Your task to perform on an android device: see creations saved in the google photos Image 0: 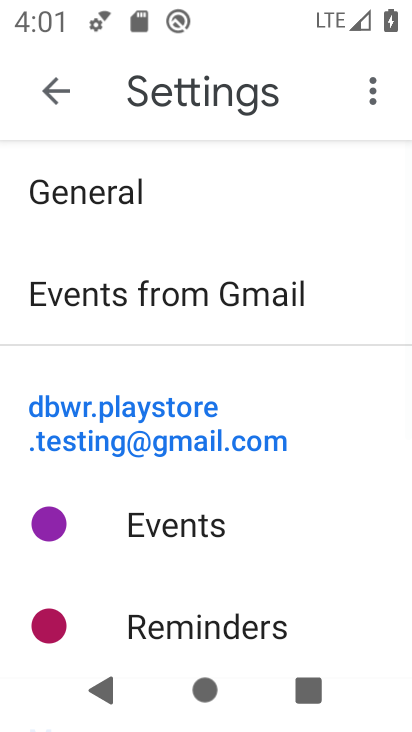
Step 0: press home button
Your task to perform on an android device: see creations saved in the google photos Image 1: 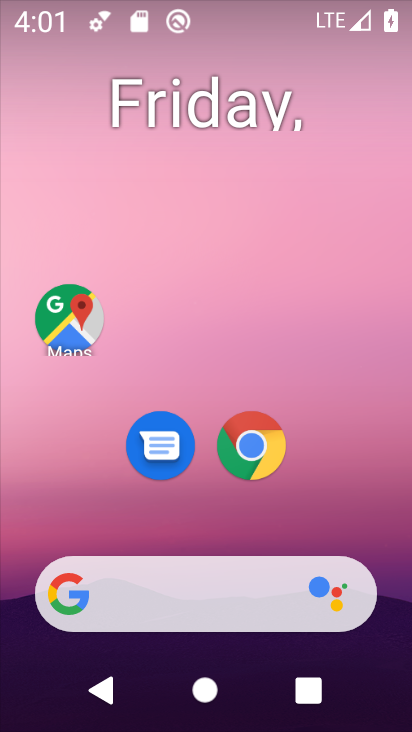
Step 1: drag from (396, 528) to (306, 178)
Your task to perform on an android device: see creations saved in the google photos Image 2: 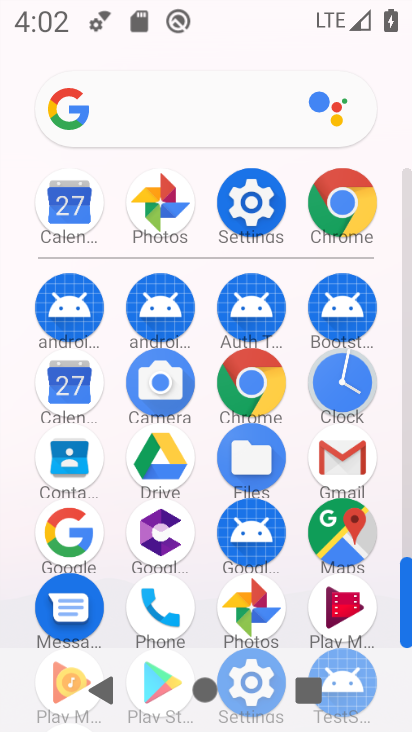
Step 2: click (250, 596)
Your task to perform on an android device: see creations saved in the google photos Image 3: 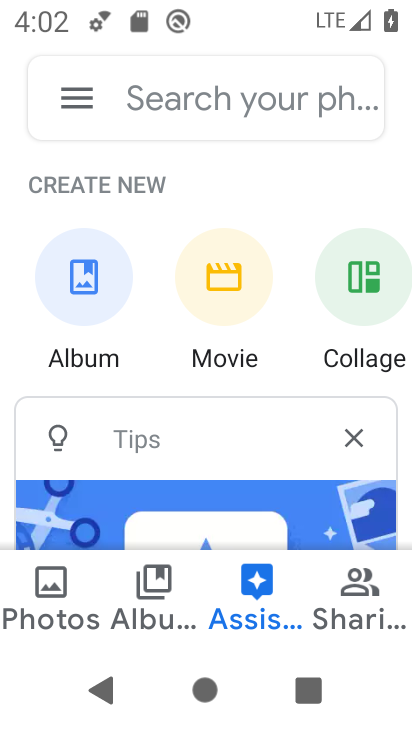
Step 3: click (162, 93)
Your task to perform on an android device: see creations saved in the google photos Image 4: 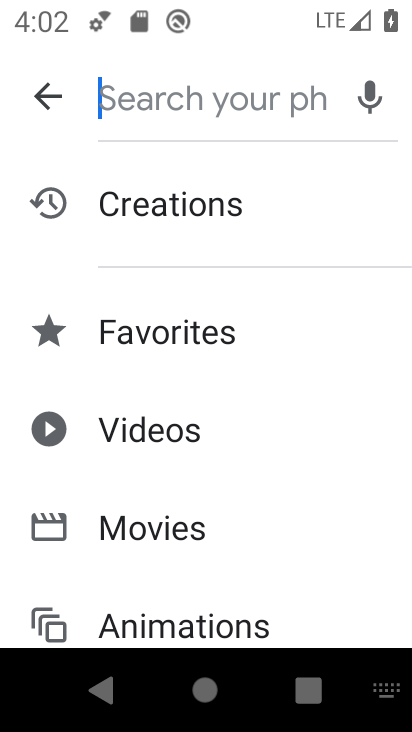
Step 4: click (161, 203)
Your task to perform on an android device: see creations saved in the google photos Image 5: 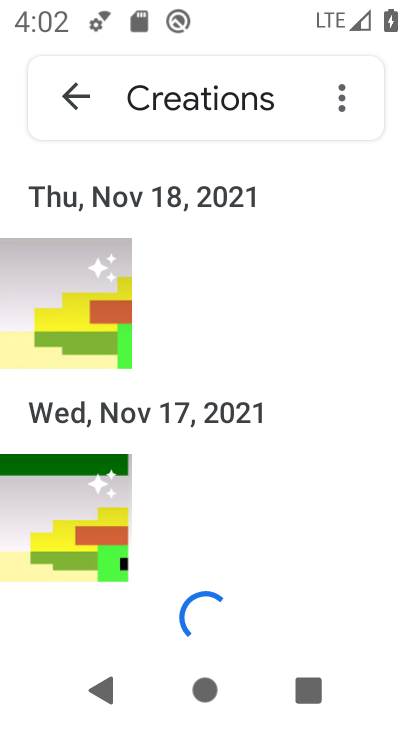
Step 5: task complete